Your task to perform on an android device: Open Android settings Image 0: 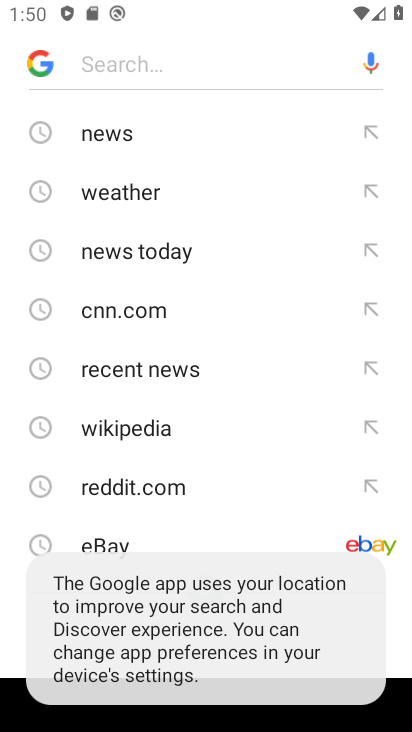
Step 0: press back button
Your task to perform on an android device: Open Android settings Image 1: 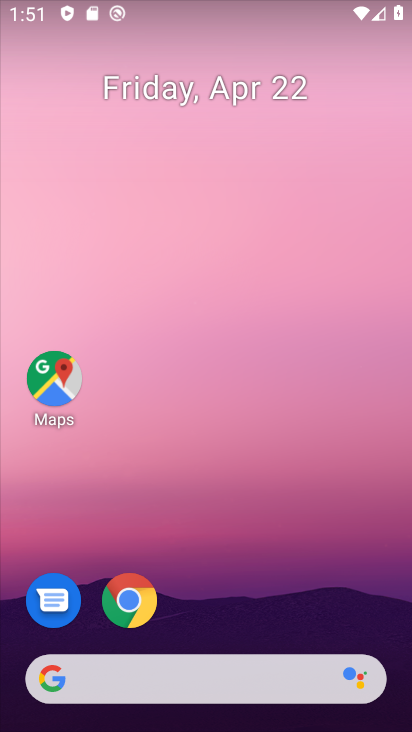
Step 1: drag from (369, 534) to (330, 32)
Your task to perform on an android device: Open Android settings Image 2: 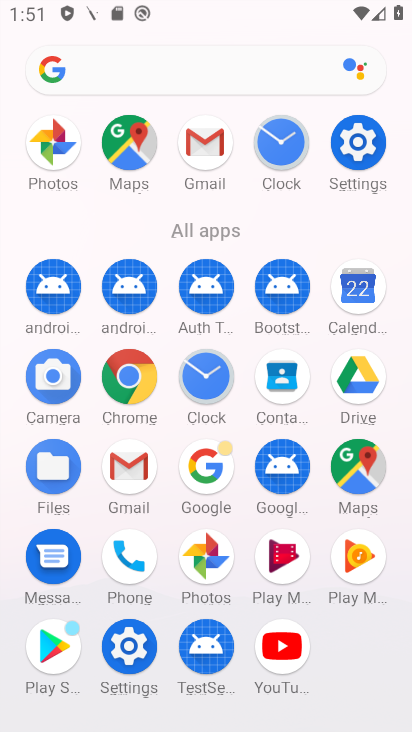
Step 2: drag from (9, 354) to (9, 281)
Your task to perform on an android device: Open Android settings Image 3: 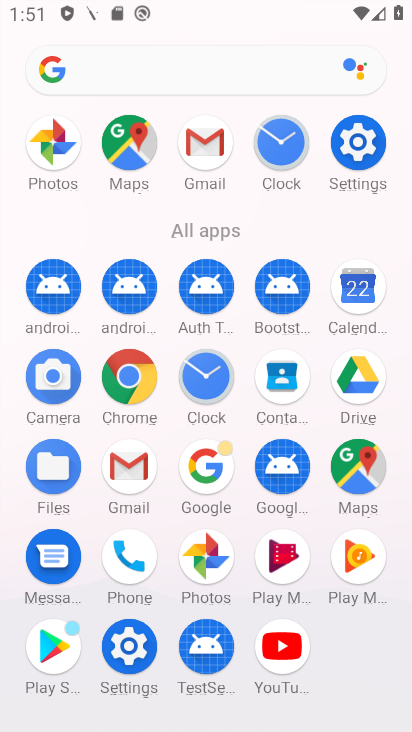
Step 3: click (128, 642)
Your task to perform on an android device: Open Android settings Image 4: 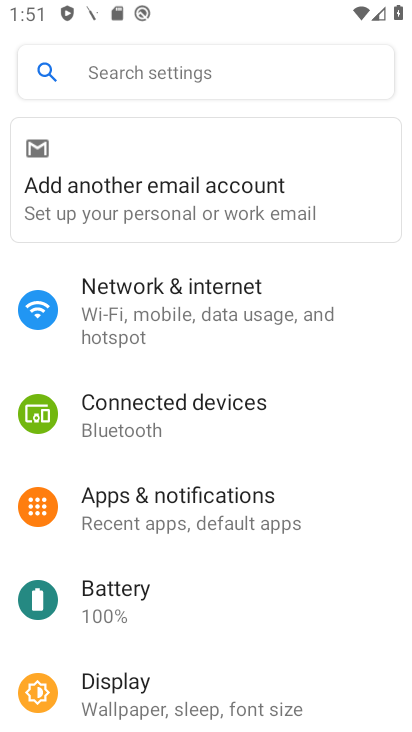
Step 4: task complete